Your task to perform on an android device: Go to Maps Image 0: 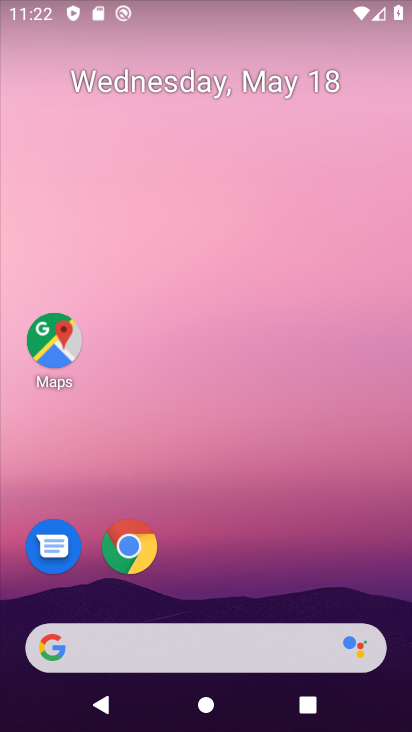
Step 0: click (58, 338)
Your task to perform on an android device: Go to Maps Image 1: 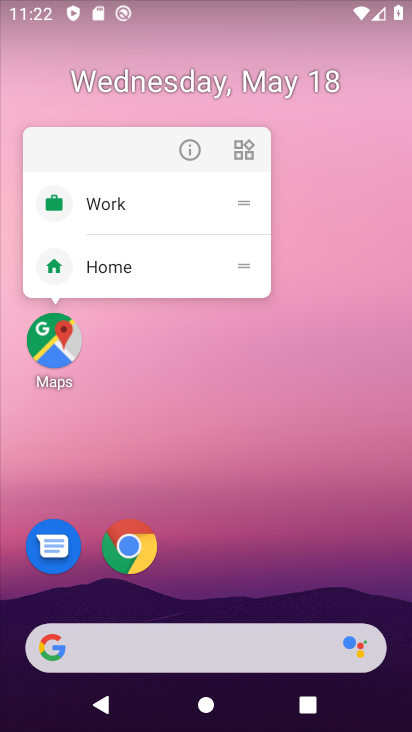
Step 1: click (53, 348)
Your task to perform on an android device: Go to Maps Image 2: 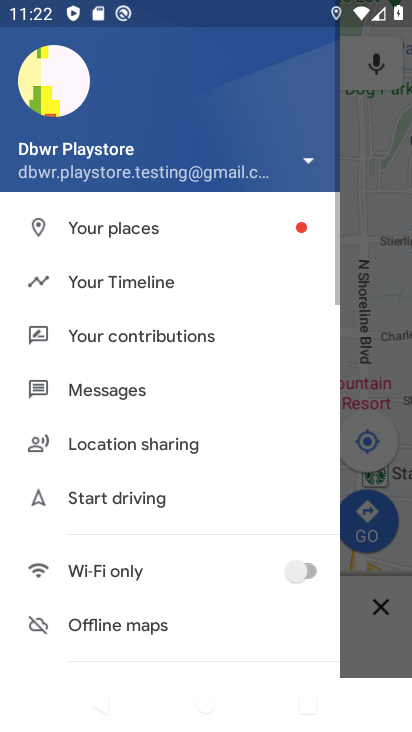
Step 2: task complete